Your task to perform on an android device: change the clock style Image 0: 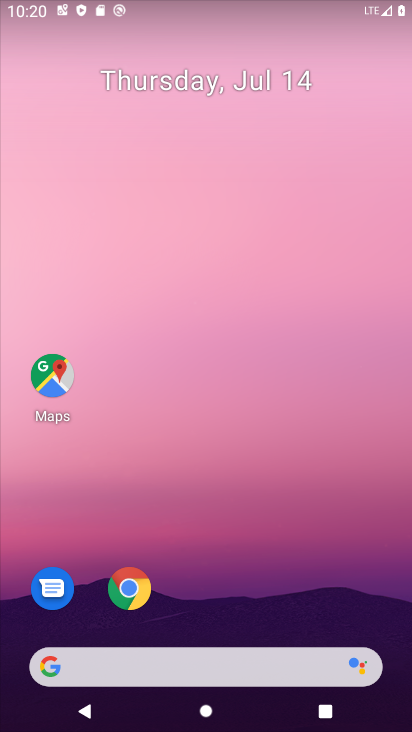
Step 0: drag from (397, 650) to (221, 60)
Your task to perform on an android device: change the clock style Image 1: 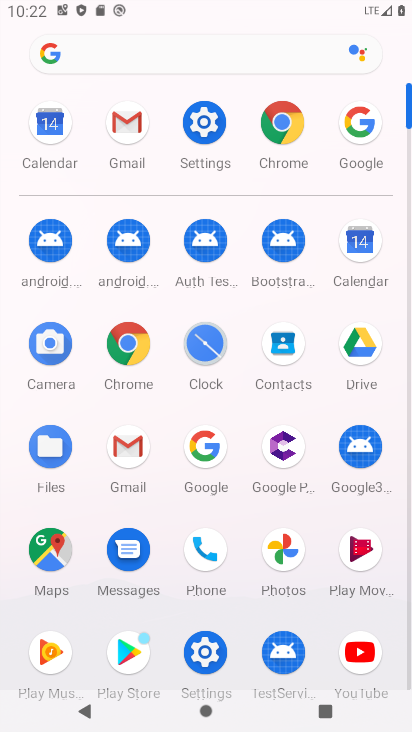
Step 1: click (200, 347)
Your task to perform on an android device: change the clock style Image 2: 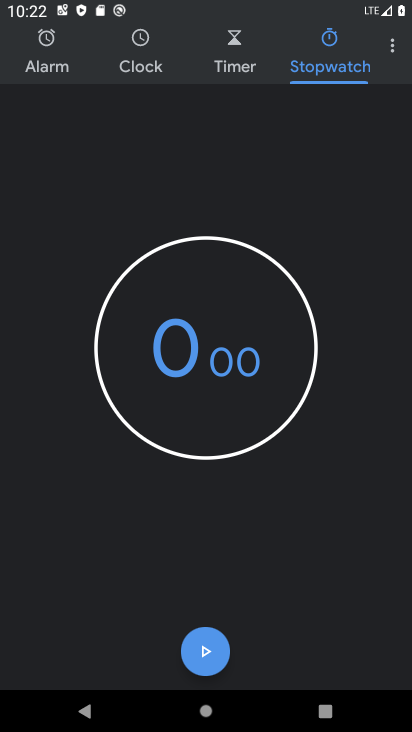
Step 2: click (387, 47)
Your task to perform on an android device: change the clock style Image 3: 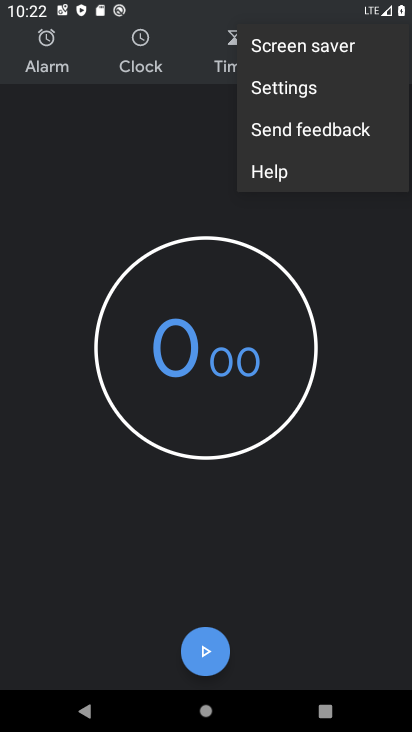
Step 3: click (269, 81)
Your task to perform on an android device: change the clock style Image 4: 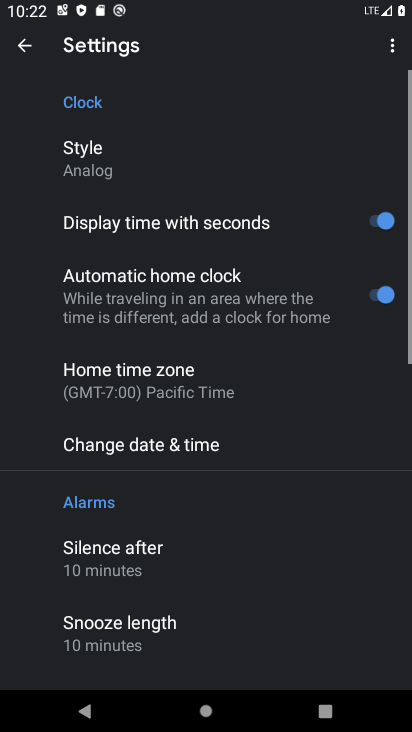
Step 4: click (115, 167)
Your task to perform on an android device: change the clock style Image 5: 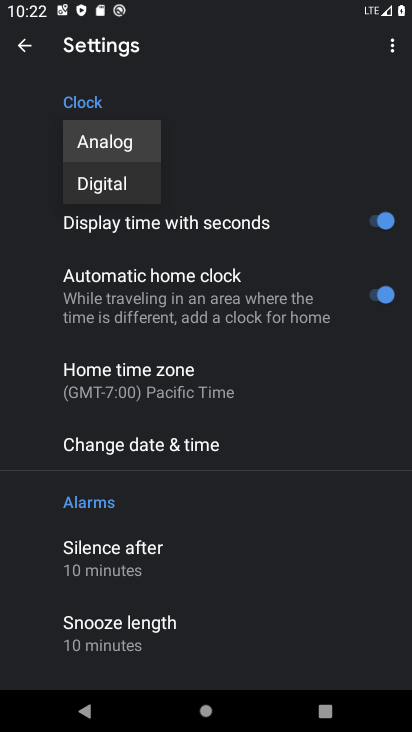
Step 5: click (115, 177)
Your task to perform on an android device: change the clock style Image 6: 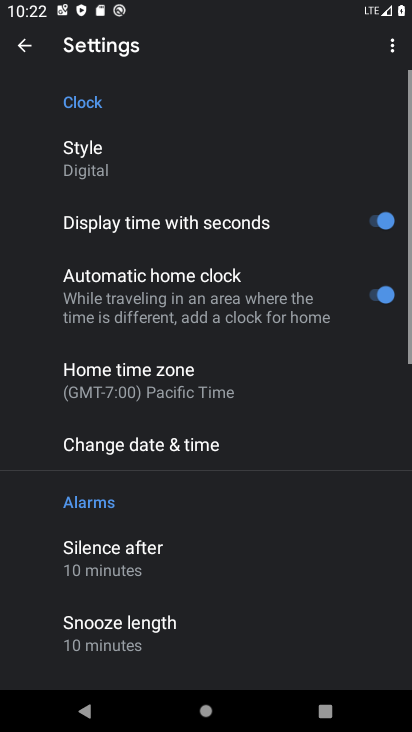
Step 6: task complete